Your task to perform on an android device: see sites visited before in the chrome app Image 0: 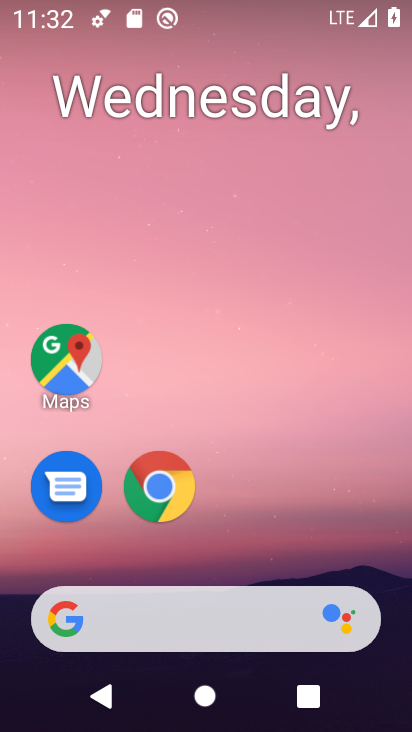
Step 0: drag from (342, 540) to (359, 130)
Your task to perform on an android device: see sites visited before in the chrome app Image 1: 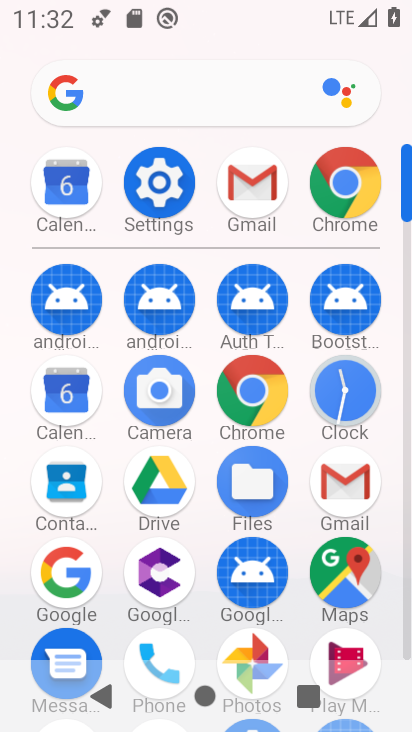
Step 1: click (274, 399)
Your task to perform on an android device: see sites visited before in the chrome app Image 2: 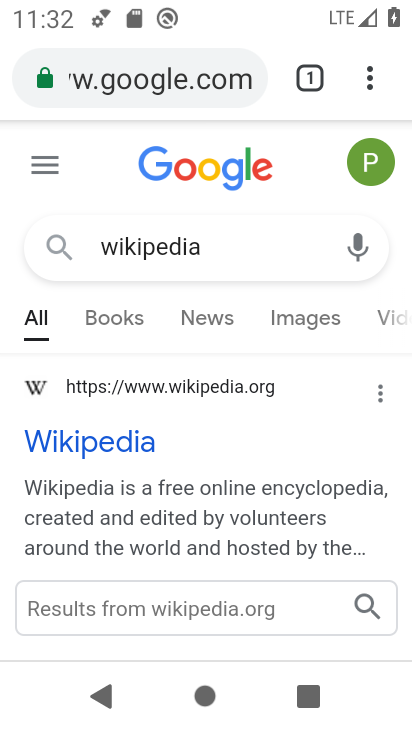
Step 2: click (373, 80)
Your task to perform on an android device: see sites visited before in the chrome app Image 3: 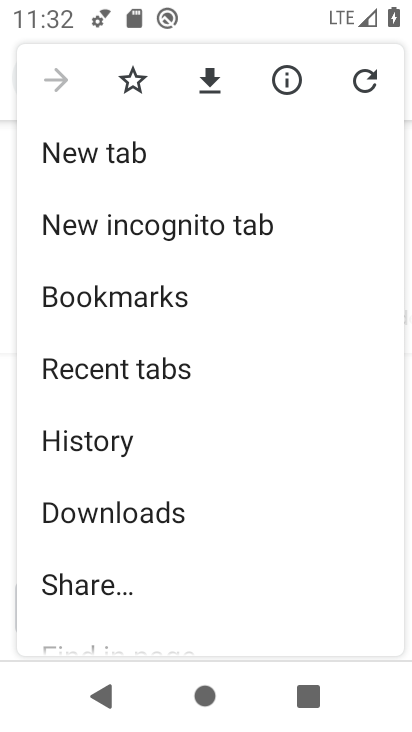
Step 3: click (140, 443)
Your task to perform on an android device: see sites visited before in the chrome app Image 4: 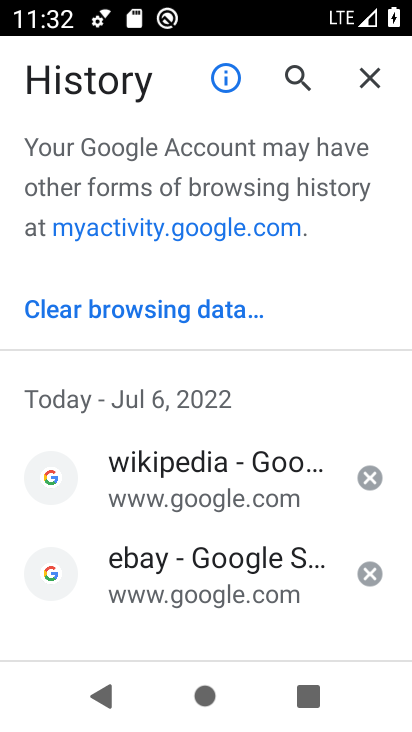
Step 4: task complete